Your task to perform on an android device: Empty the shopping cart on ebay. Add "alienware aurora" to the cart on ebay Image 0: 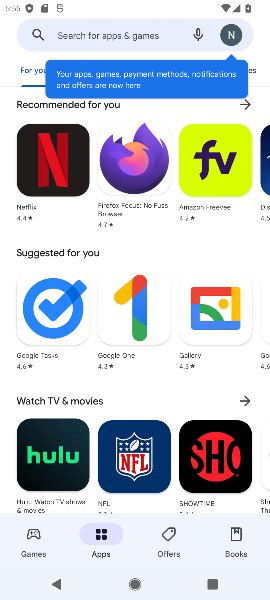
Step 0: press home button
Your task to perform on an android device: Empty the shopping cart on ebay. Add "alienware aurora" to the cart on ebay Image 1: 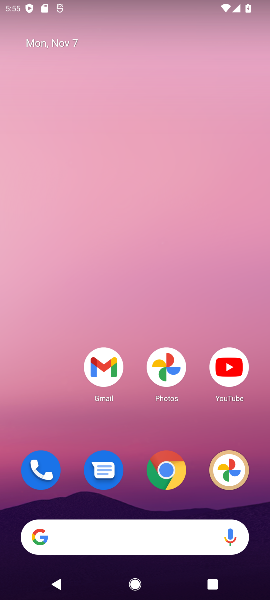
Step 1: click (159, 467)
Your task to perform on an android device: Empty the shopping cart on ebay. Add "alienware aurora" to the cart on ebay Image 2: 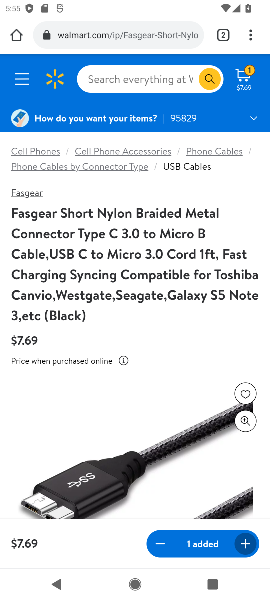
Step 2: click (123, 37)
Your task to perform on an android device: Empty the shopping cart on ebay. Add "alienware aurora" to the cart on ebay Image 3: 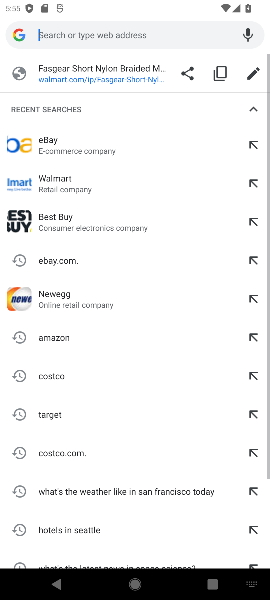
Step 3: click (63, 143)
Your task to perform on an android device: Empty the shopping cart on ebay. Add "alienware aurora" to the cart on ebay Image 4: 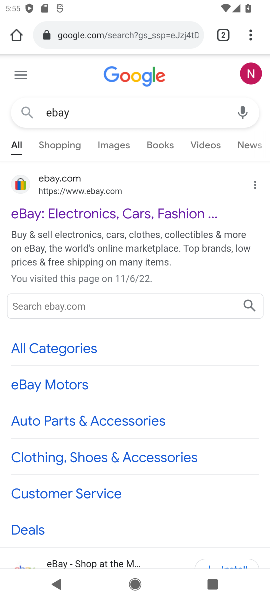
Step 4: click (58, 217)
Your task to perform on an android device: Empty the shopping cart on ebay. Add "alienware aurora" to the cart on ebay Image 5: 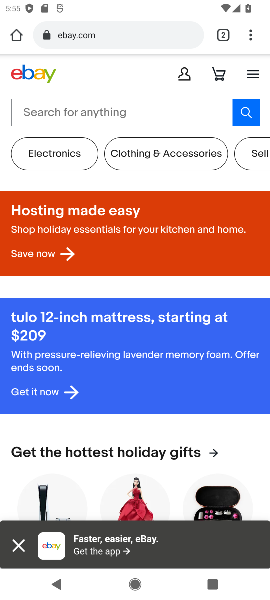
Step 5: click (219, 85)
Your task to perform on an android device: Empty the shopping cart on ebay. Add "alienware aurora" to the cart on ebay Image 6: 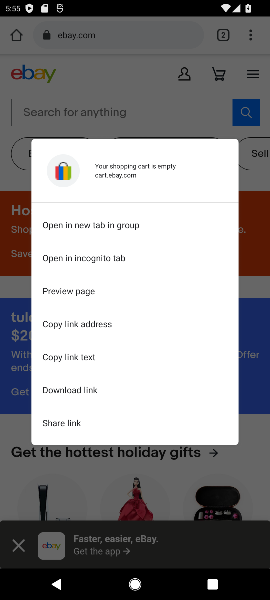
Step 6: click (220, 77)
Your task to perform on an android device: Empty the shopping cart on ebay. Add "alienware aurora" to the cart on ebay Image 7: 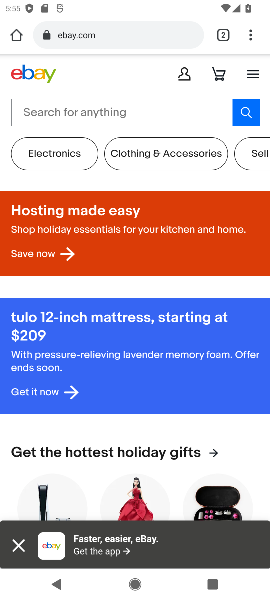
Step 7: click (220, 77)
Your task to perform on an android device: Empty the shopping cart on ebay. Add "alienware aurora" to the cart on ebay Image 8: 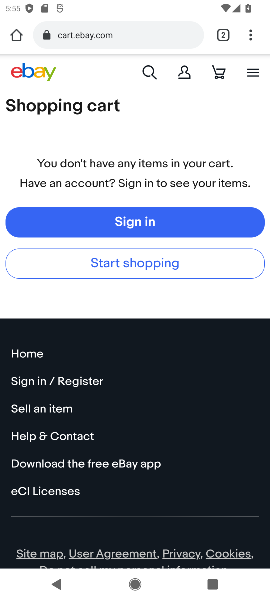
Step 8: click (139, 73)
Your task to perform on an android device: Empty the shopping cart on ebay. Add "alienware aurora" to the cart on ebay Image 9: 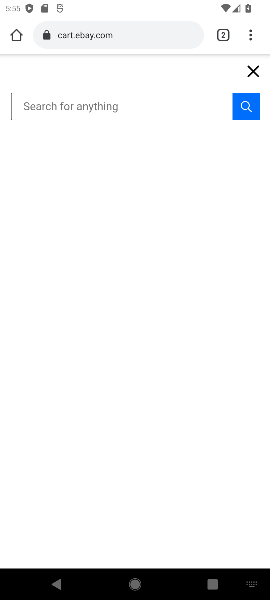
Step 9: type "alienware aurora"
Your task to perform on an android device: Empty the shopping cart on ebay. Add "alienware aurora" to the cart on ebay Image 10: 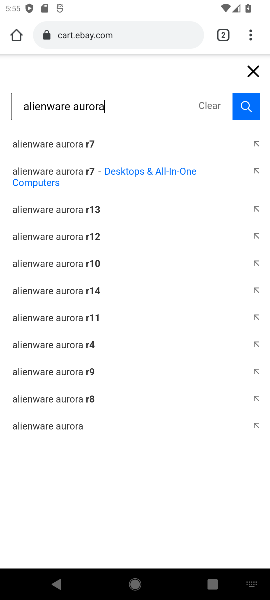
Step 10: click (251, 114)
Your task to perform on an android device: Empty the shopping cart on ebay. Add "alienware aurora" to the cart on ebay Image 11: 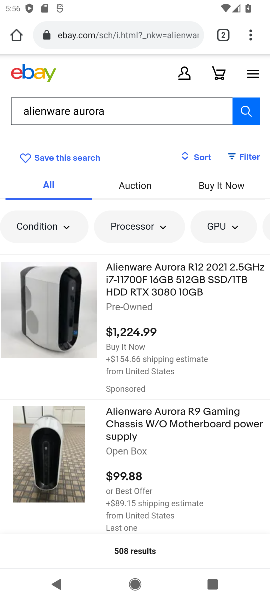
Step 11: click (143, 294)
Your task to perform on an android device: Empty the shopping cart on ebay. Add "alienware aurora" to the cart on ebay Image 12: 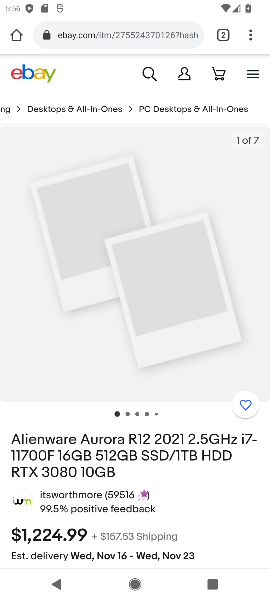
Step 12: drag from (133, 511) to (108, 101)
Your task to perform on an android device: Empty the shopping cart on ebay. Add "alienware aurora" to the cart on ebay Image 13: 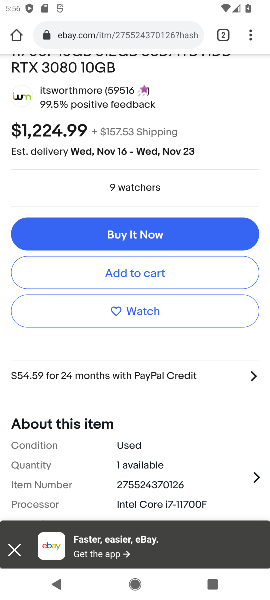
Step 13: click (98, 280)
Your task to perform on an android device: Empty the shopping cart on ebay. Add "alienware aurora" to the cart on ebay Image 14: 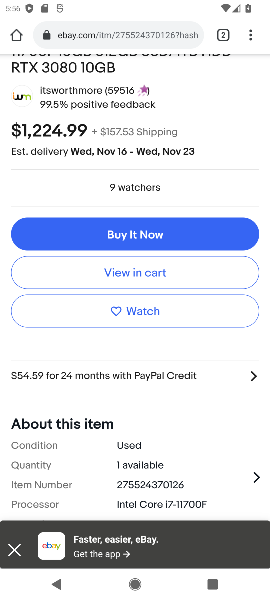
Step 14: task complete